Your task to perform on an android device: turn off location Image 0: 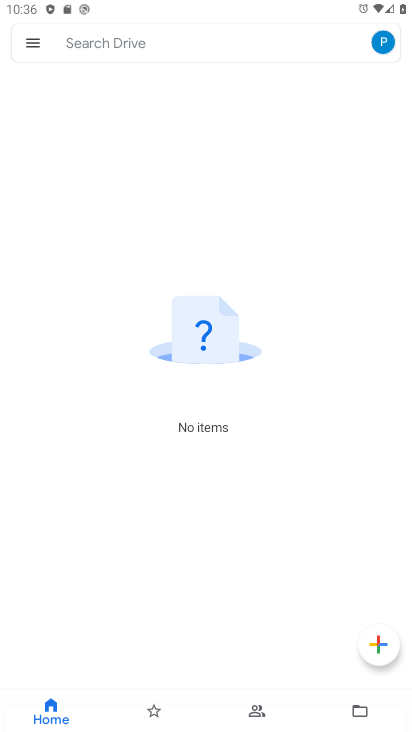
Step 0: press home button
Your task to perform on an android device: turn off location Image 1: 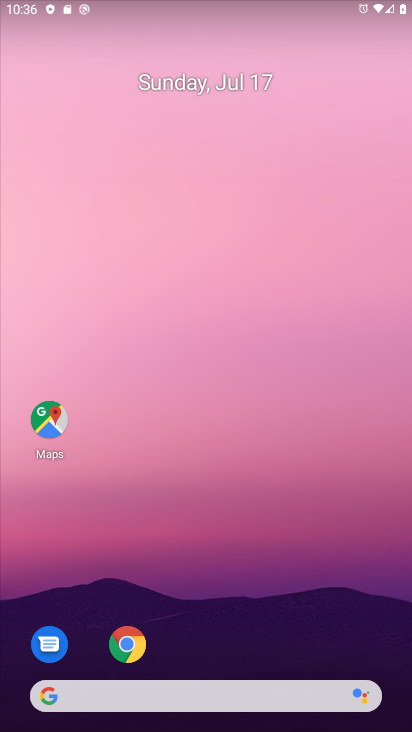
Step 1: drag from (277, 537) to (338, 19)
Your task to perform on an android device: turn off location Image 2: 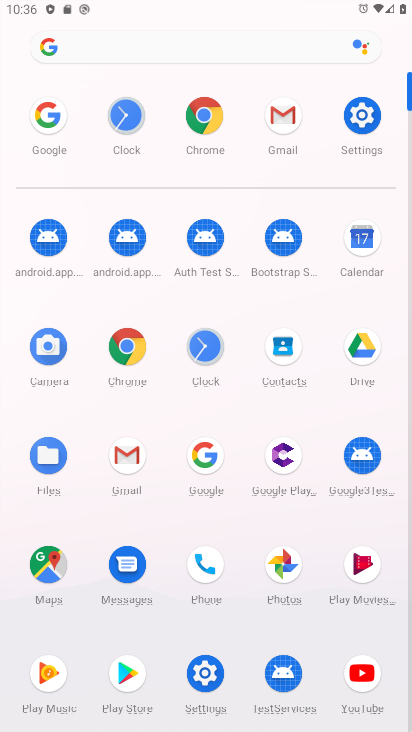
Step 2: click (362, 124)
Your task to perform on an android device: turn off location Image 3: 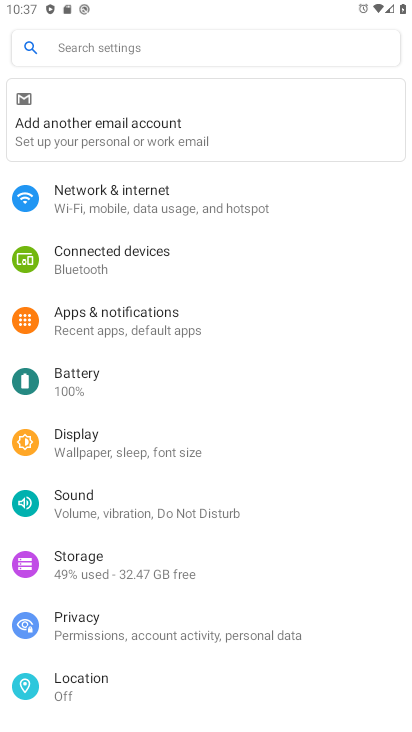
Step 3: drag from (123, 619) to (215, 158)
Your task to perform on an android device: turn off location Image 4: 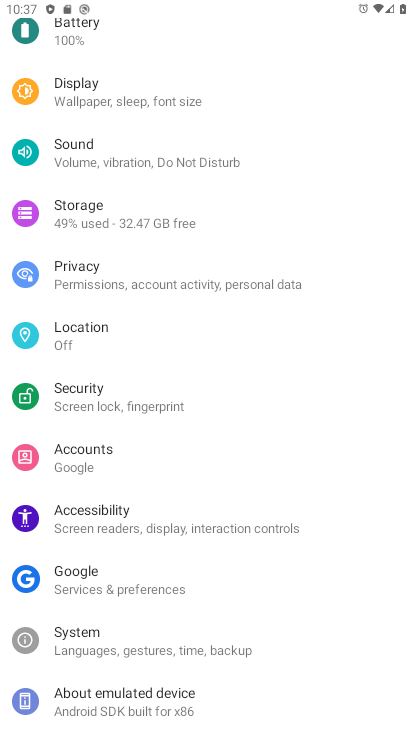
Step 4: click (76, 337)
Your task to perform on an android device: turn off location Image 5: 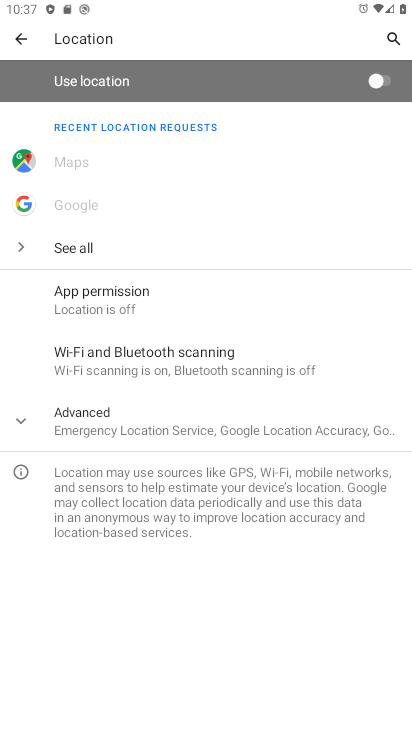
Step 5: task complete